Your task to perform on an android device: Show me popular videos on Youtube Image 0: 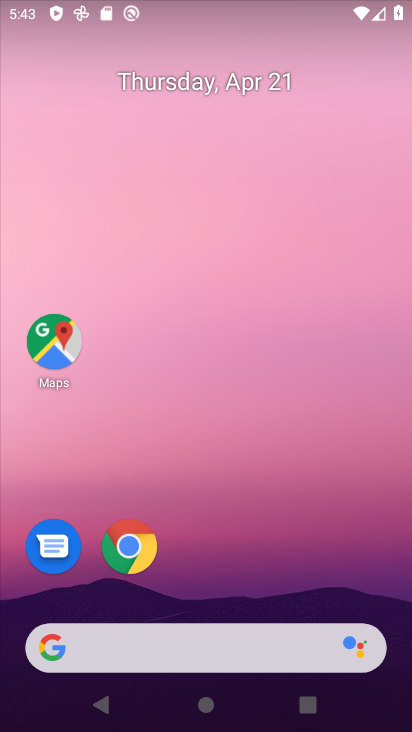
Step 0: drag from (269, 326) to (260, 21)
Your task to perform on an android device: Show me popular videos on Youtube Image 1: 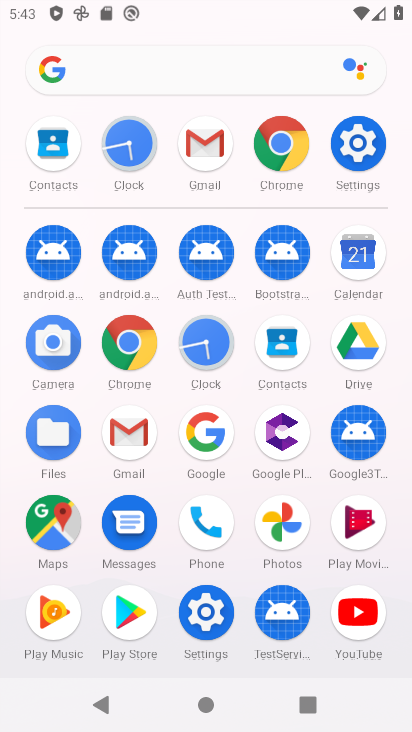
Step 1: click (352, 597)
Your task to perform on an android device: Show me popular videos on Youtube Image 2: 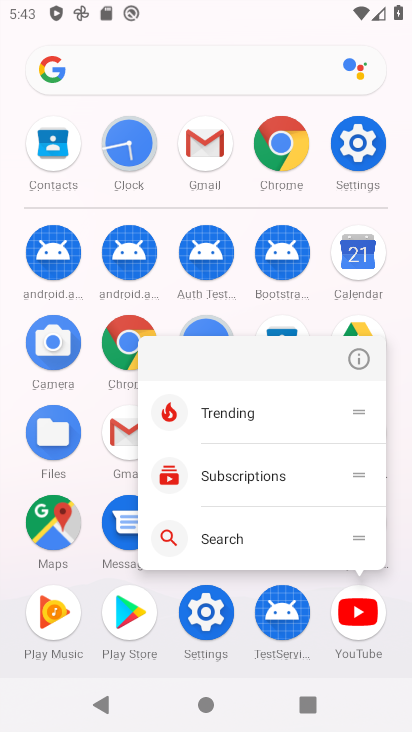
Step 2: click (359, 603)
Your task to perform on an android device: Show me popular videos on Youtube Image 3: 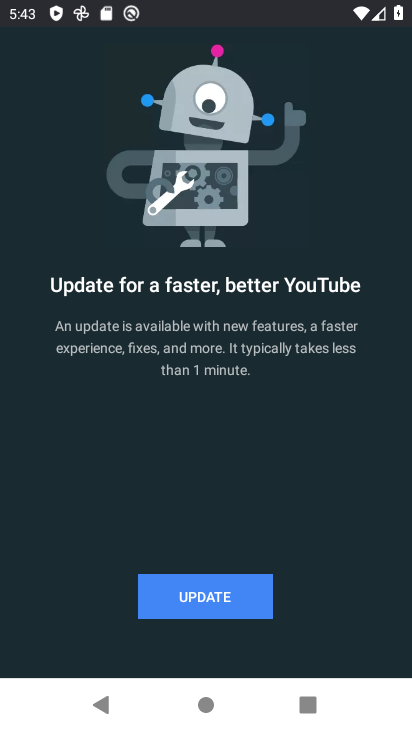
Step 3: click (222, 587)
Your task to perform on an android device: Show me popular videos on Youtube Image 4: 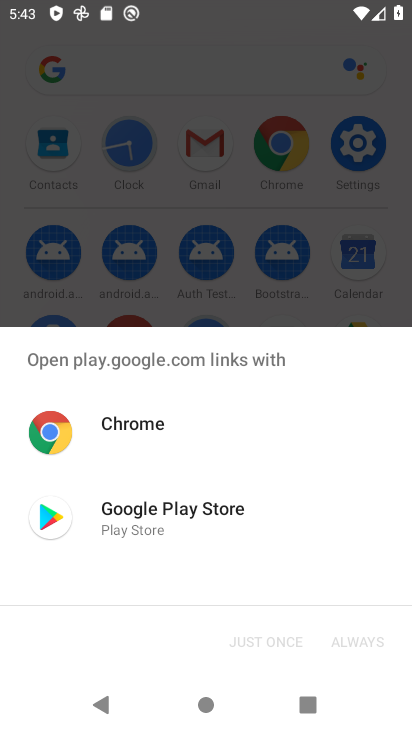
Step 4: click (157, 518)
Your task to perform on an android device: Show me popular videos on Youtube Image 5: 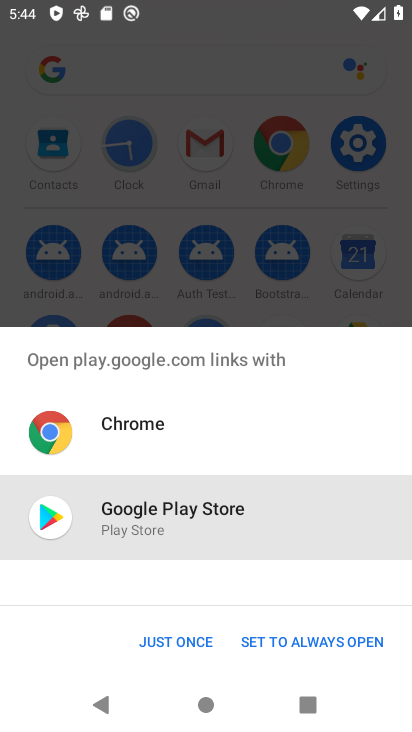
Step 5: click (164, 638)
Your task to perform on an android device: Show me popular videos on Youtube Image 6: 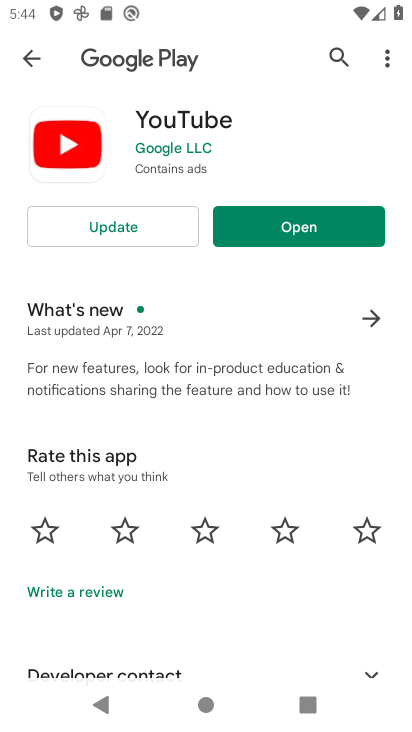
Step 6: click (108, 221)
Your task to perform on an android device: Show me popular videos on Youtube Image 7: 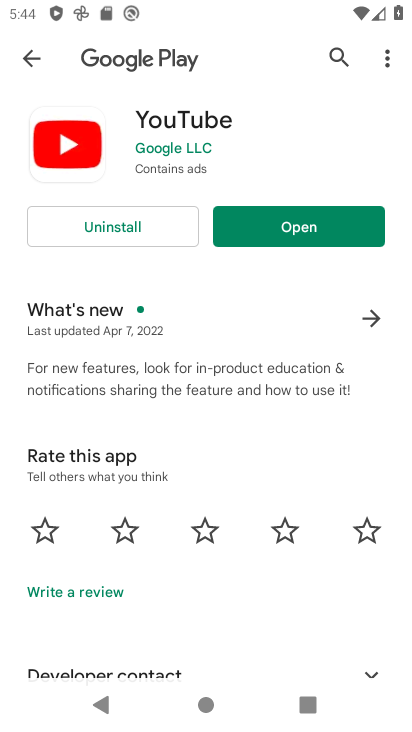
Step 7: click (287, 227)
Your task to perform on an android device: Show me popular videos on Youtube Image 8: 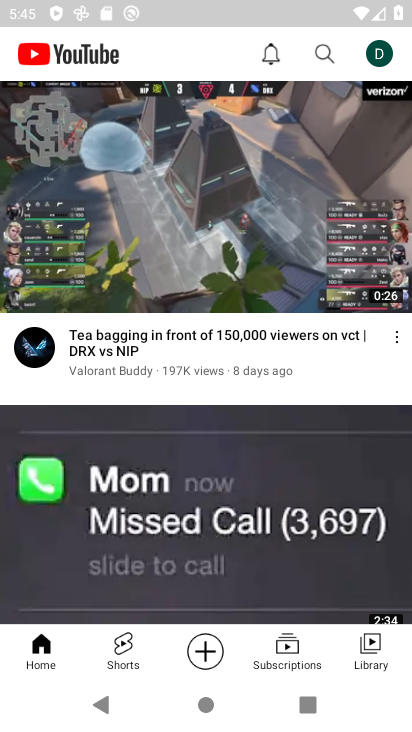
Step 8: drag from (204, 279) to (200, 538)
Your task to perform on an android device: Show me popular videos on Youtube Image 9: 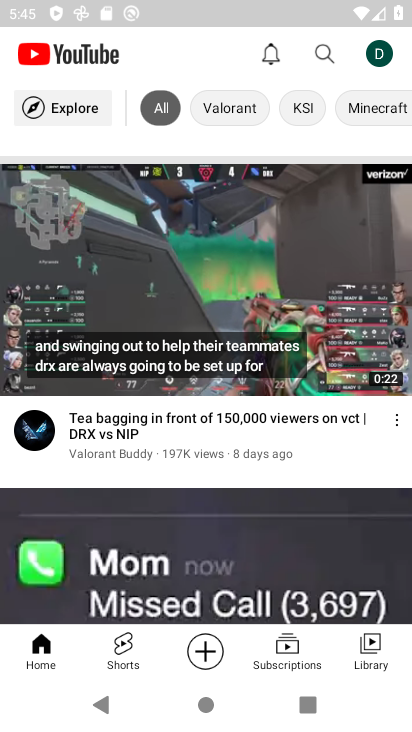
Step 9: click (53, 112)
Your task to perform on an android device: Show me popular videos on Youtube Image 10: 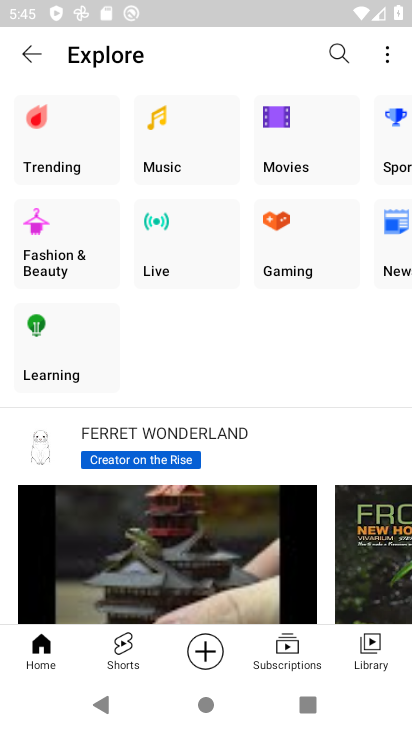
Step 10: click (59, 149)
Your task to perform on an android device: Show me popular videos on Youtube Image 11: 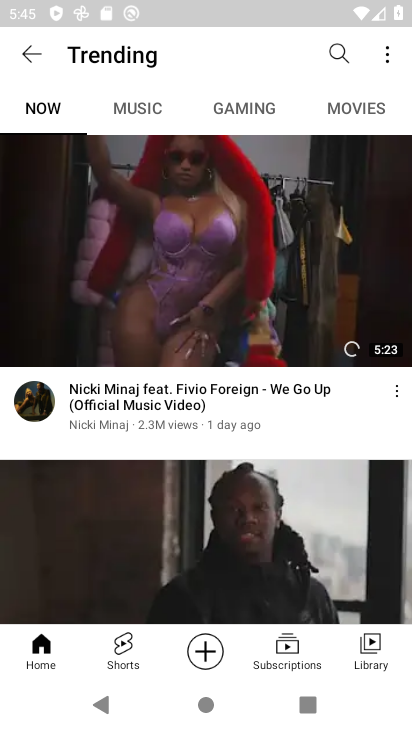
Step 11: task complete